Your task to perform on an android device: check the backup settings in the google photos Image 0: 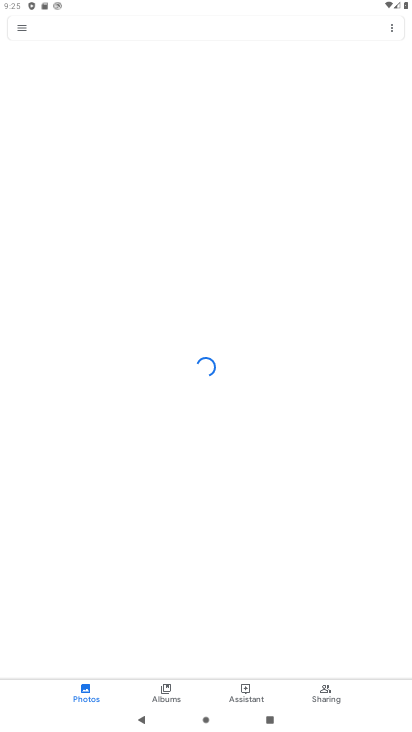
Step 0: press home button
Your task to perform on an android device: check the backup settings in the google photos Image 1: 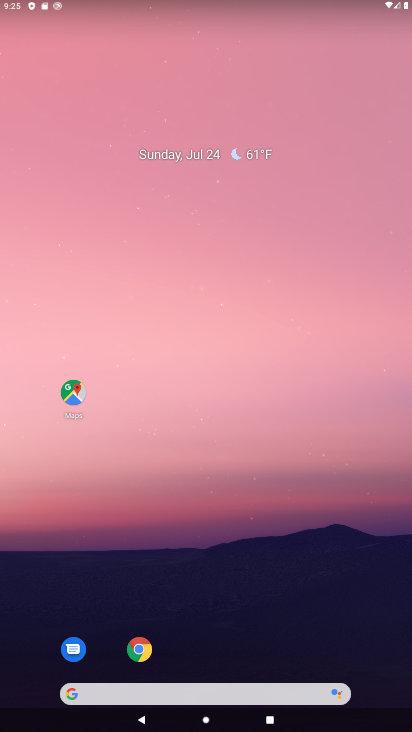
Step 1: drag from (355, 620) to (255, 50)
Your task to perform on an android device: check the backup settings in the google photos Image 2: 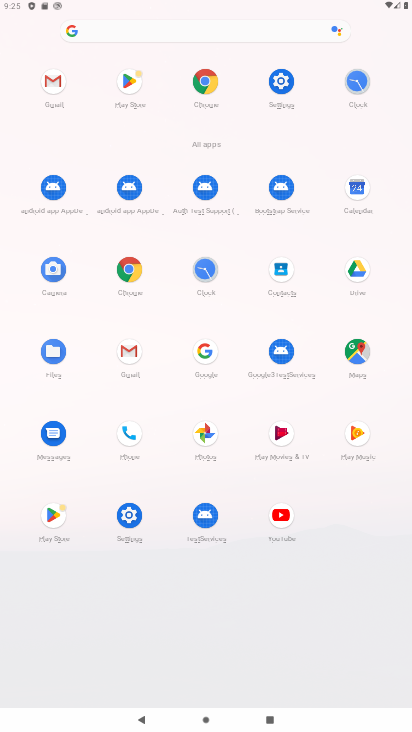
Step 2: click (211, 431)
Your task to perform on an android device: check the backup settings in the google photos Image 3: 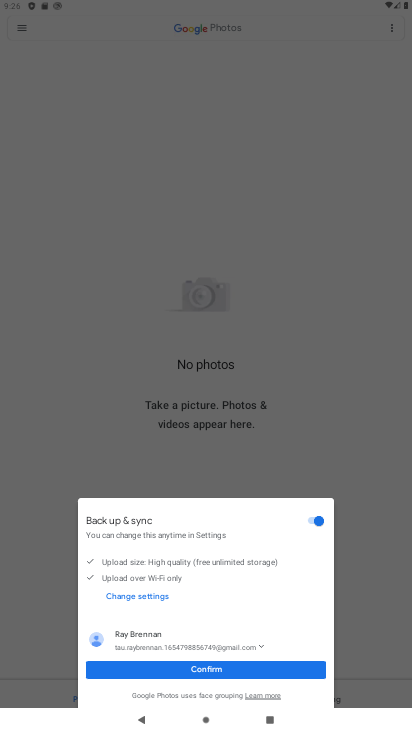
Step 3: click (209, 662)
Your task to perform on an android device: check the backup settings in the google photos Image 4: 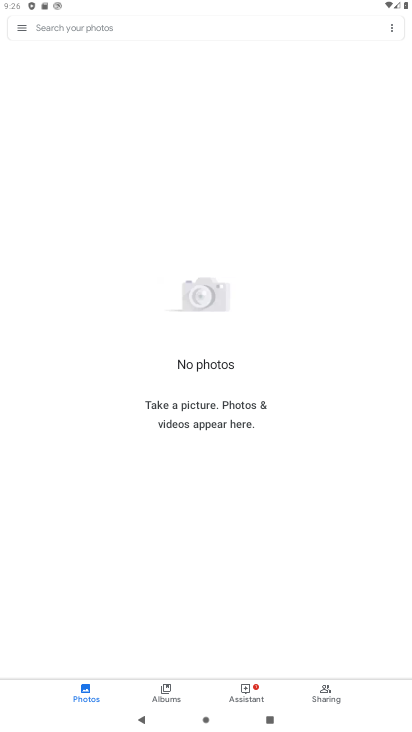
Step 4: click (14, 19)
Your task to perform on an android device: check the backup settings in the google photos Image 5: 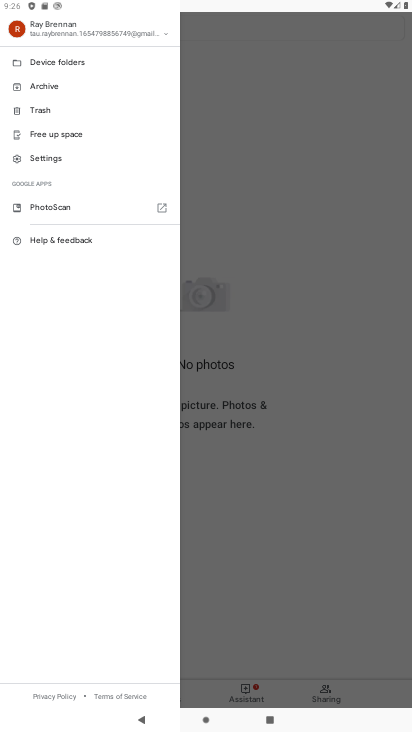
Step 5: click (57, 170)
Your task to perform on an android device: check the backup settings in the google photos Image 6: 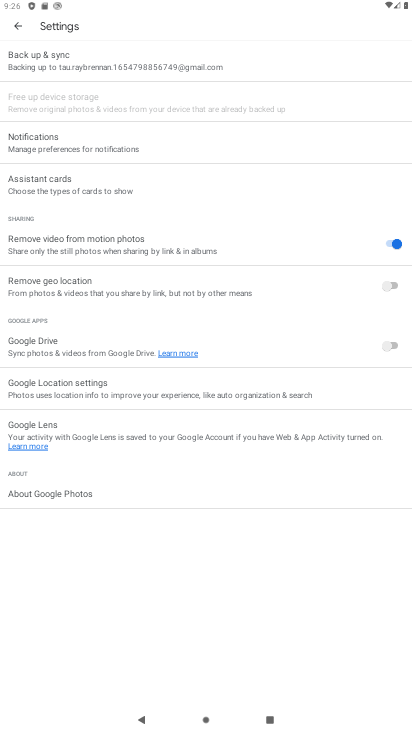
Step 6: click (107, 69)
Your task to perform on an android device: check the backup settings in the google photos Image 7: 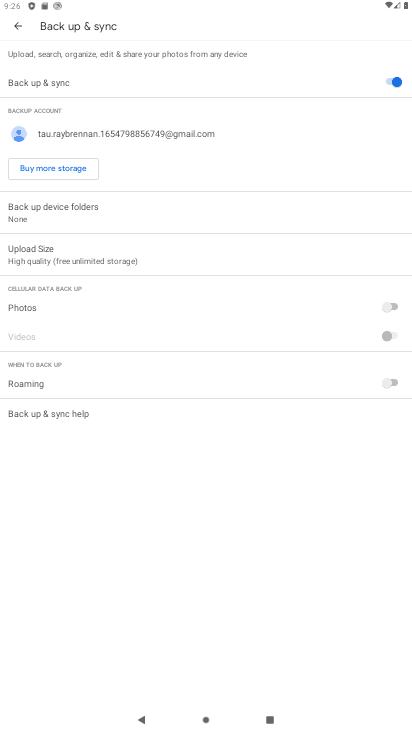
Step 7: task complete